Your task to perform on an android device: Go to settings Image 0: 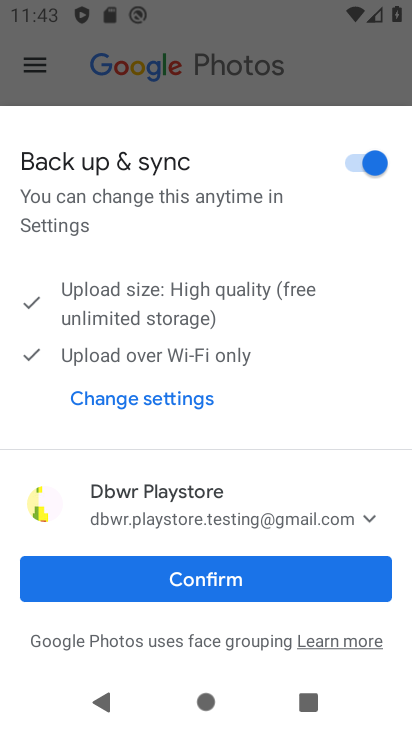
Step 0: press home button
Your task to perform on an android device: Go to settings Image 1: 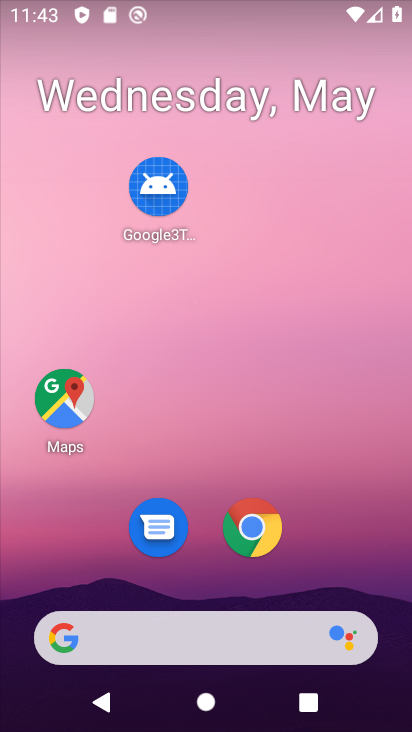
Step 1: drag from (206, 589) to (236, 102)
Your task to perform on an android device: Go to settings Image 2: 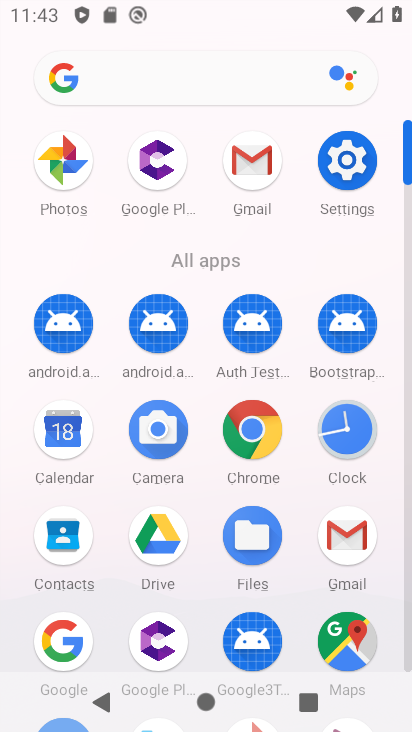
Step 2: click (343, 153)
Your task to perform on an android device: Go to settings Image 3: 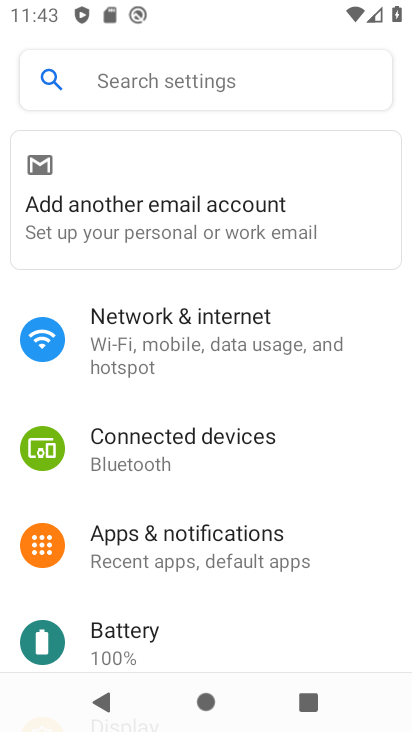
Step 3: task complete